Your task to perform on an android device: Open Youtube and go to "Your channel" Image 0: 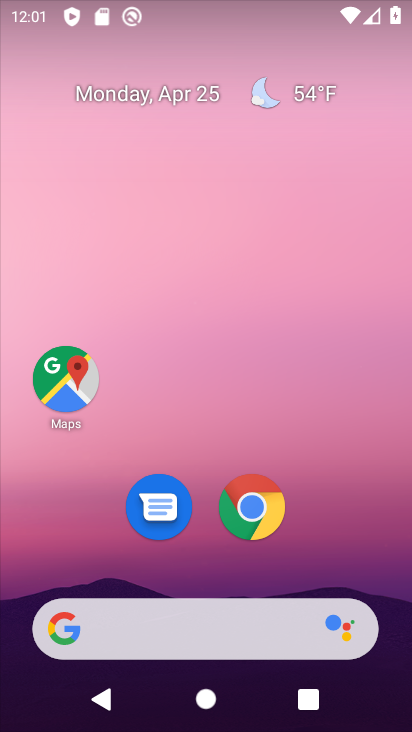
Step 0: drag from (324, 564) to (281, 84)
Your task to perform on an android device: Open Youtube and go to "Your channel" Image 1: 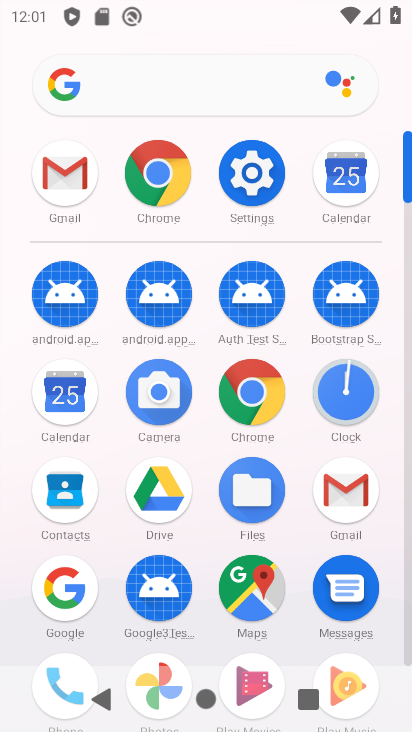
Step 1: drag from (11, 553) to (17, 245)
Your task to perform on an android device: Open Youtube and go to "Your channel" Image 2: 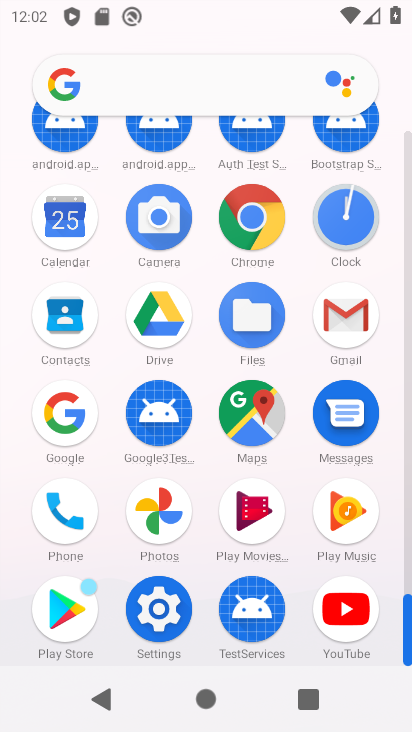
Step 2: click (348, 604)
Your task to perform on an android device: Open Youtube and go to "Your channel" Image 3: 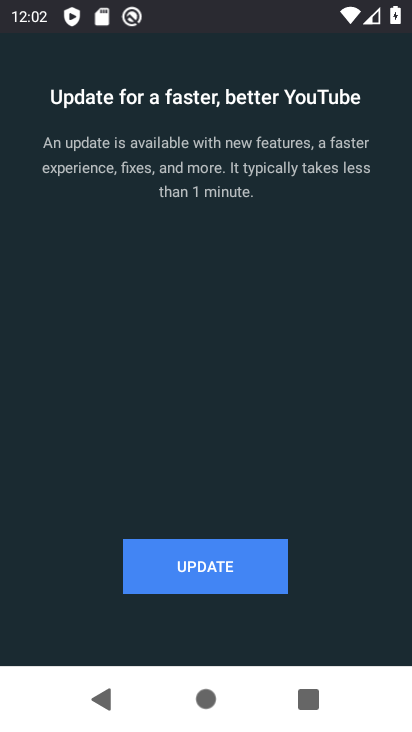
Step 3: click (250, 577)
Your task to perform on an android device: Open Youtube and go to "Your channel" Image 4: 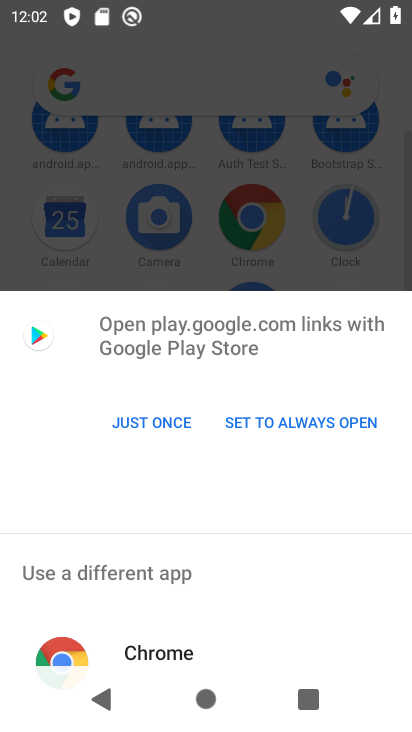
Step 4: click (132, 419)
Your task to perform on an android device: Open Youtube and go to "Your channel" Image 5: 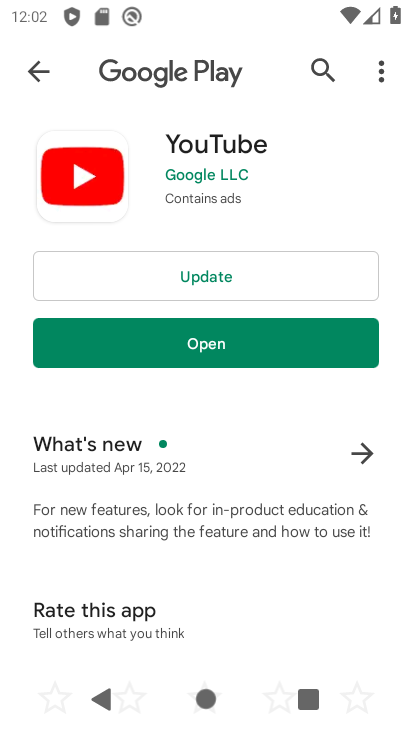
Step 5: click (183, 275)
Your task to perform on an android device: Open Youtube and go to "Your channel" Image 6: 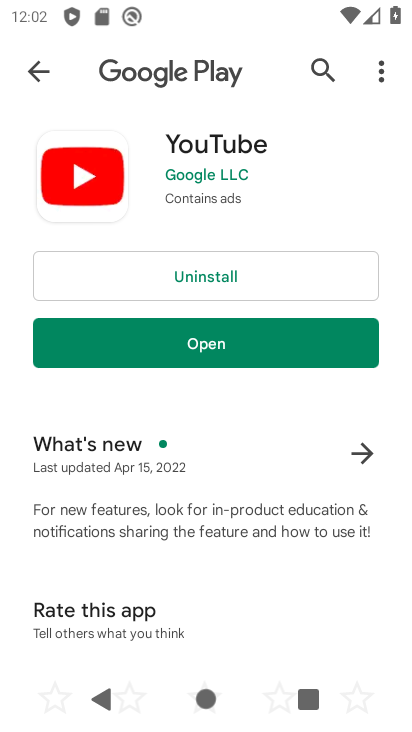
Step 6: click (183, 354)
Your task to perform on an android device: Open Youtube and go to "Your channel" Image 7: 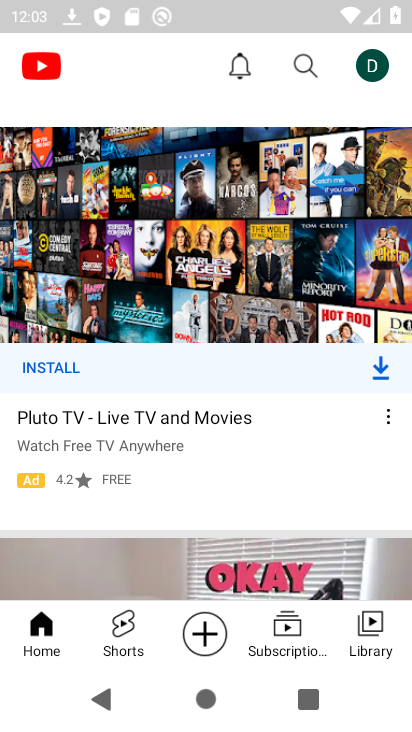
Step 7: click (367, 641)
Your task to perform on an android device: Open Youtube and go to "Your channel" Image 8: 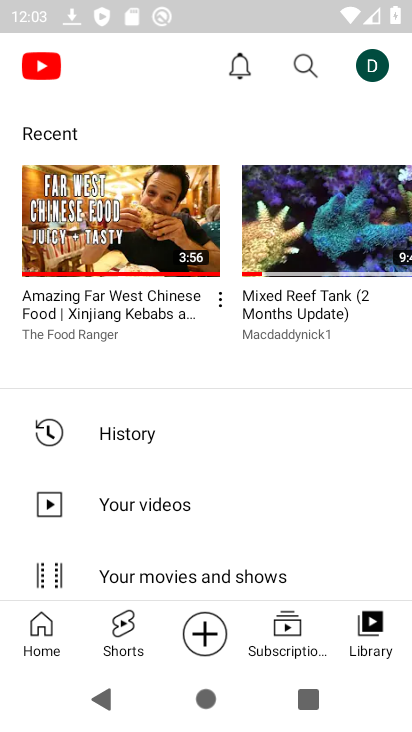
Step 8: click (93, 234)
Your task to perform on an android device: Open Youtube and go to "Your channel" Image 9: 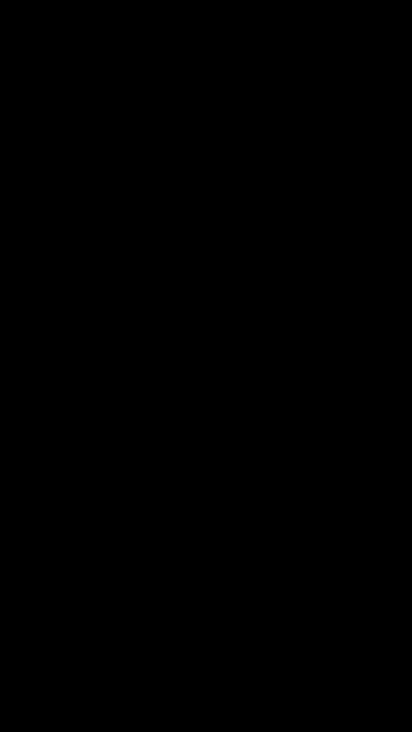
Step 9: task complete